Your task to perform on an android device: find photos in the google photos app Image 0: 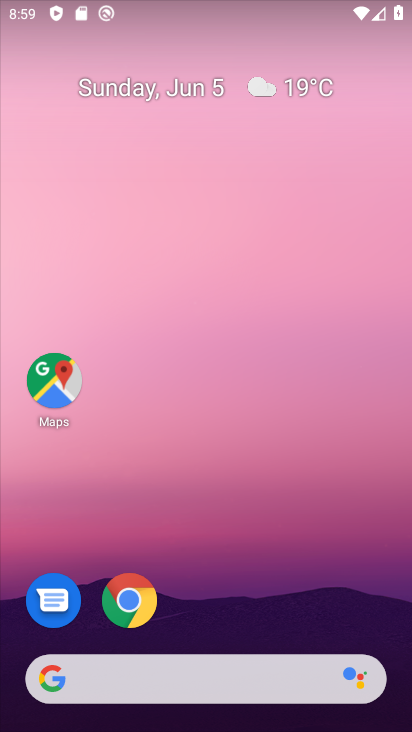
Step 0: drag from (204, 597) to (136, 130)
Your task to perform on an android device: find photos in the google photos app Image 1: 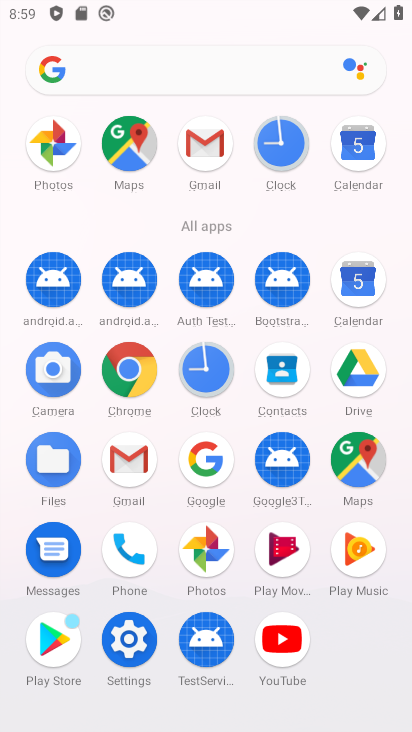
Step 1: click (41, 159)
Your task to perform on an android device: find photos in the google photos app Image 2: 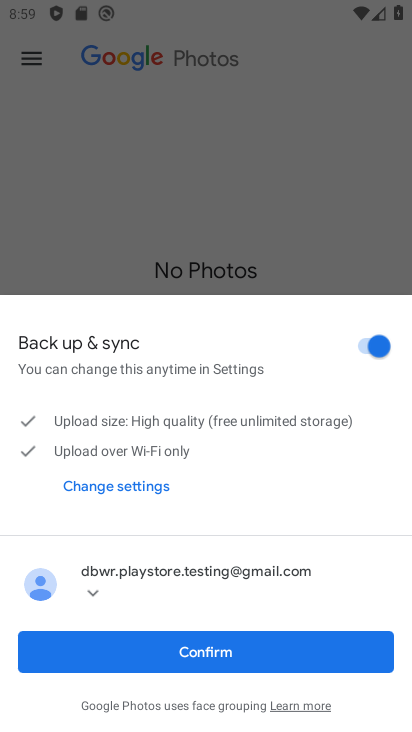
Step 2: click (182, 654)
Your task to perform on an android device: find photos in the google photos app Image 3: 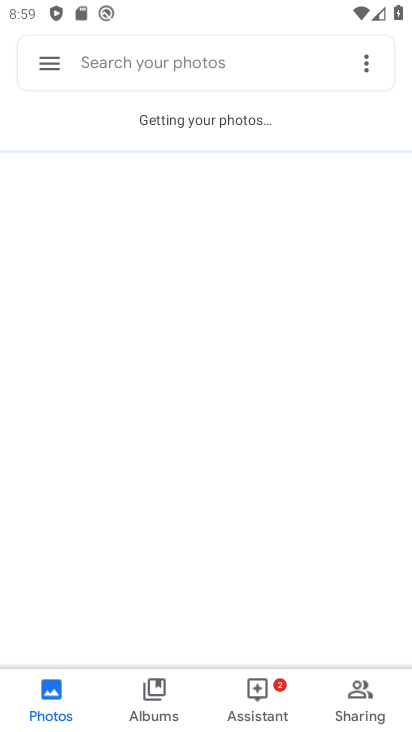
Step 3: task complete